Your task to perform on an android device: add a contact in the contacts app Image 0: 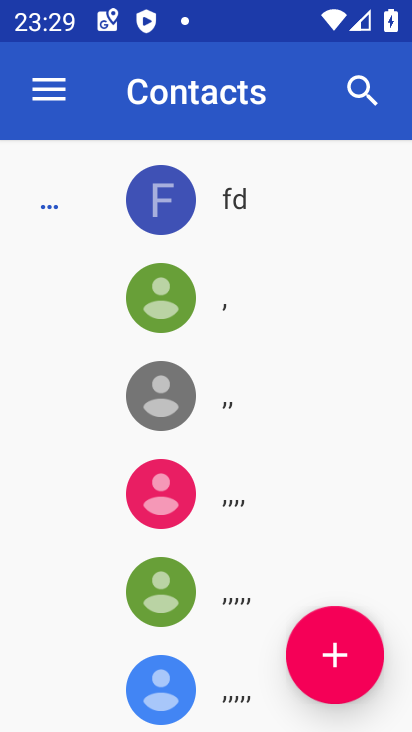
Step 0: press home button
Your task to perform on an android device: add a contact in the contacts app Image 1: 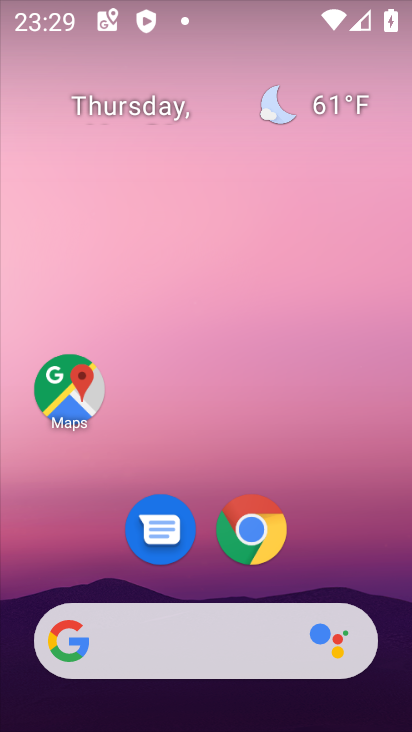
Step 1: drag from (334, 578) to (364, 10)
Your task to perform on an android device: add a contact in the contacts app Image 2: 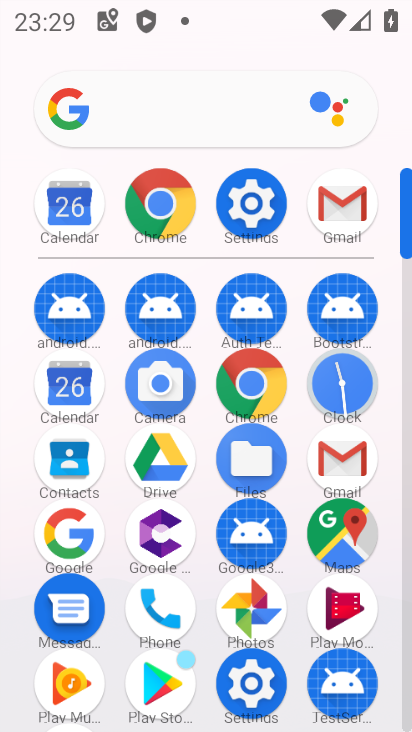
Step 2: click (71, 470)
Your task to perform on an android device: add a contact in the contacts app Image 3: 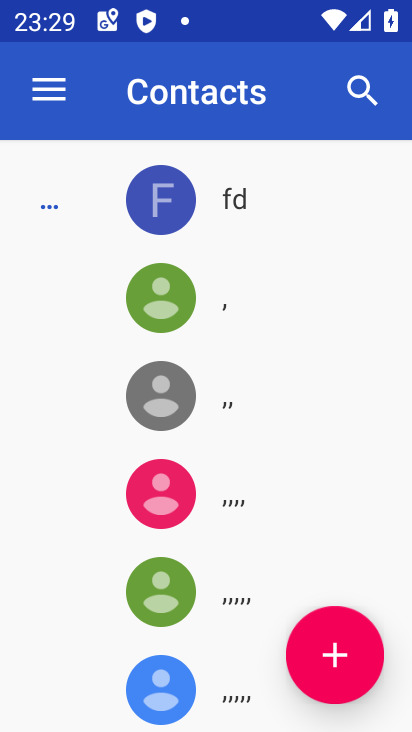
Step 3: click (348, 642)
Your task to perform on an android device: add a contact in the contacts app Image 4: 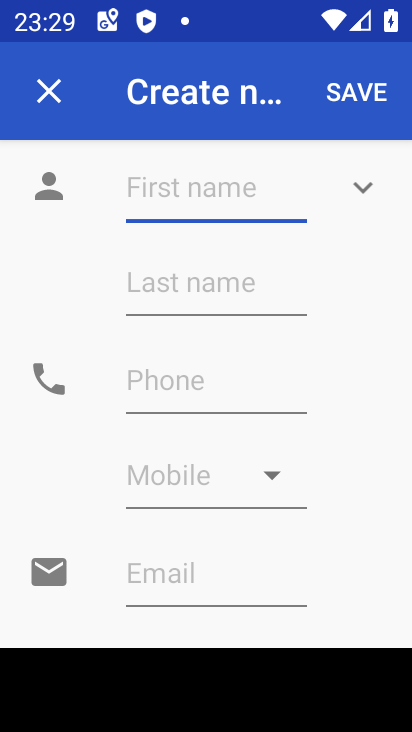
Step 4: type "wefwcwaes"
Your task to perform on an android device: add a contact in the contacts app Image 5: 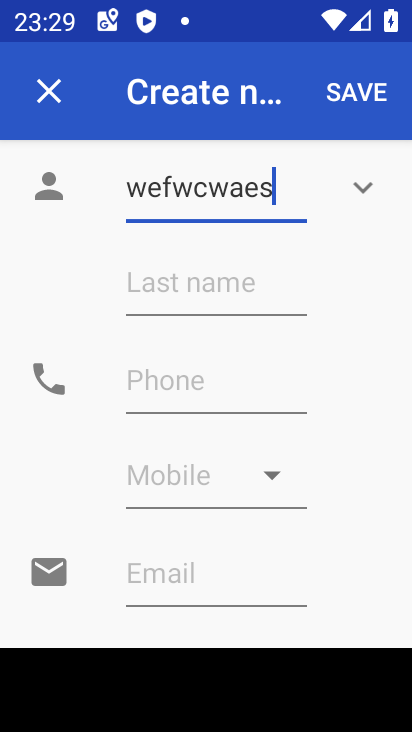
Step 5: click (390, 87)
Your task to perform on an android device: add a contact in the contacts app Image 6: 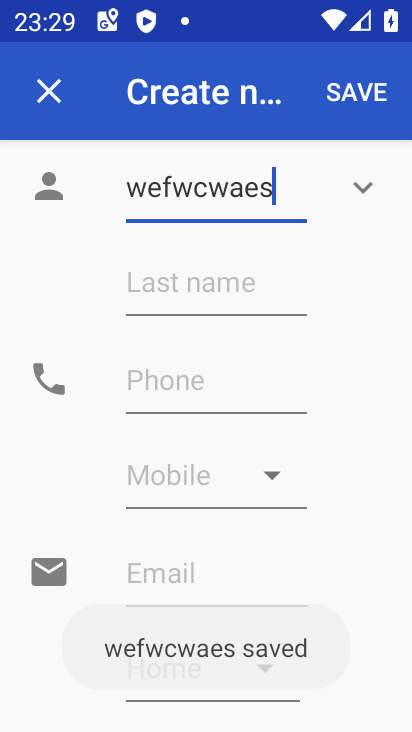
Step 6: task complete